Your task to perform on an android device: turn off picture-in-picture Image 0: 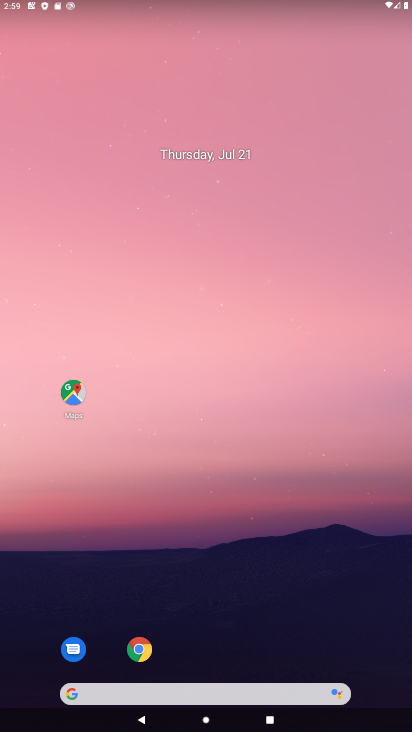
Step 0: drag from (276, 642) to (286, 46)
Your task to perform on an android device: turn off picture-in-picture Image 1: 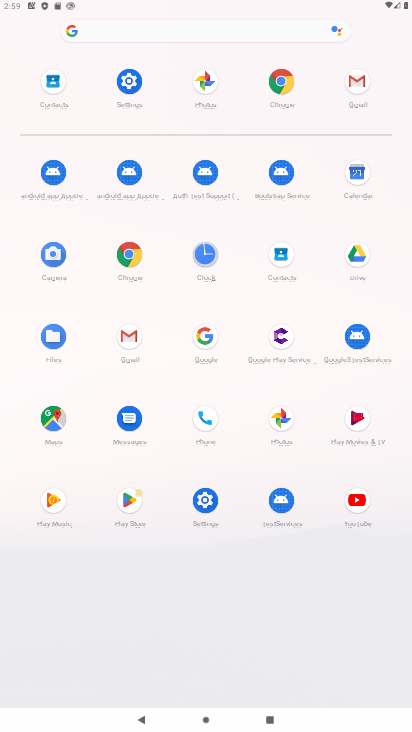
Step 1: click (124, 113)
Your task to perform on an android device: turn off picture-in-picture Image 2: 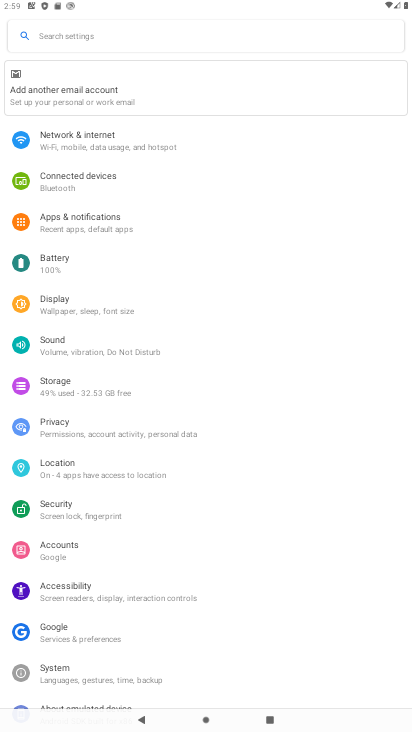
Step 2: task complete